Your task to perform on an android device: turn on wifi Image 0: 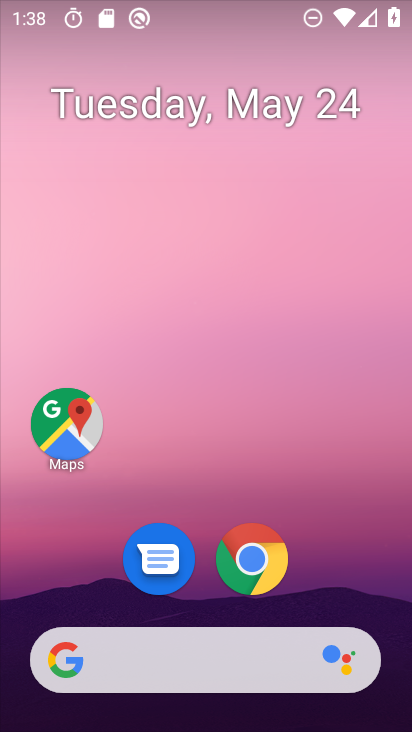
Step 0: drag from (397, 637) to (344, 125)
Your task to perform on an android device: turn on wifi Image 1: 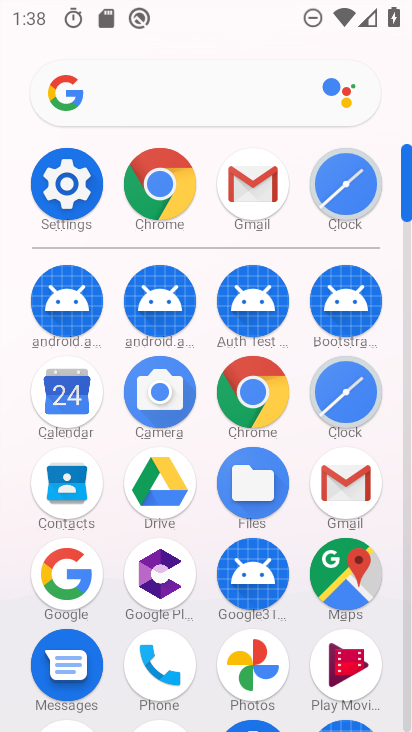
Step 1: click (75, 172)
Your task to perform on an android device: turn on wifi Image 2: 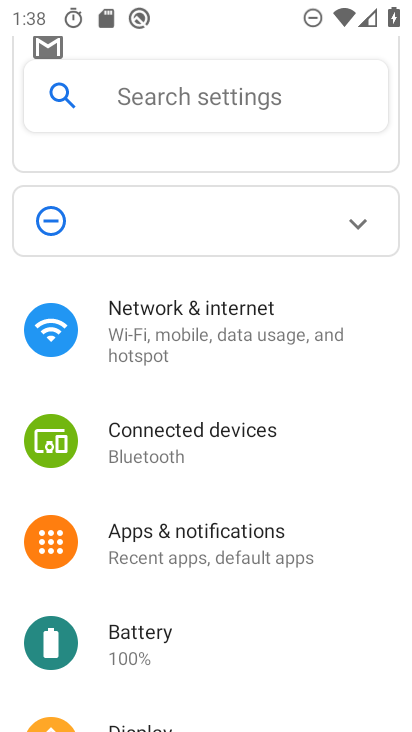
Step 2: click (208, 100)
Your task to perform on an android device: turn on wifi Image 3: 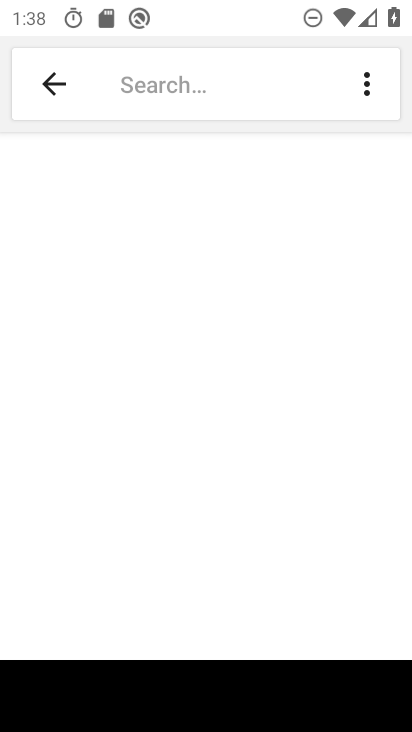
Step 3: press back button
Your task to perform on an android device: turn on wifi Image 4: 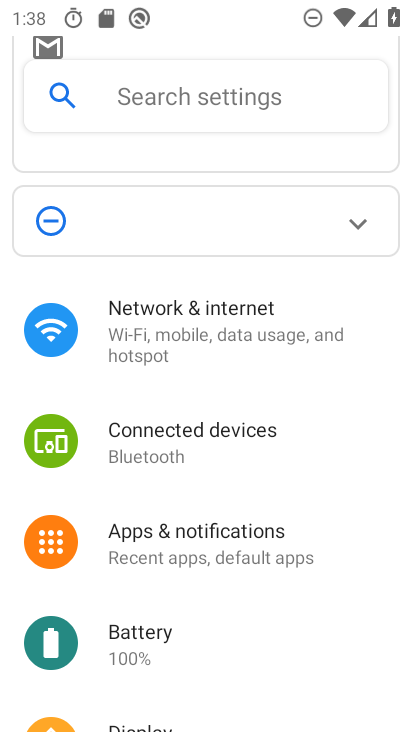
Step 4: click (164, 339)
Your task to perform on an android device: turn on wifi Image 5: 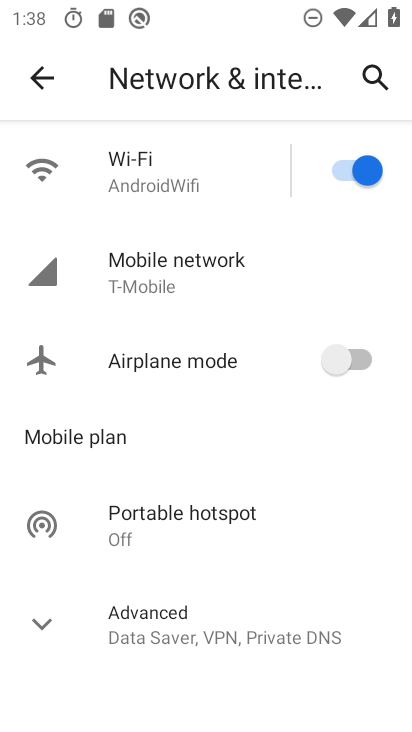
Step 5: task complete